Your task to perform on an android device: open a bookmark in the chrome app Image 0: 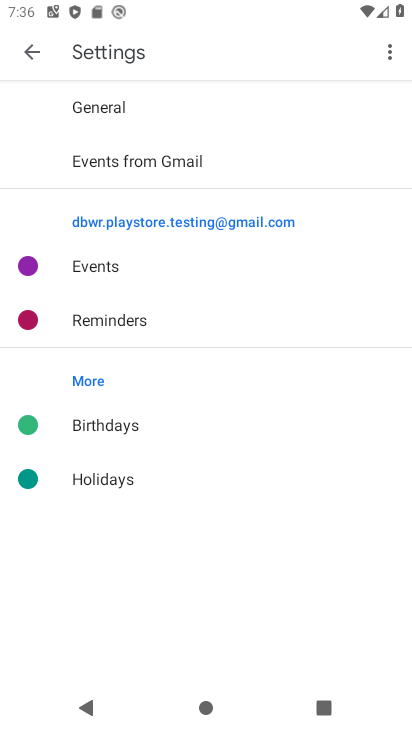
Step 0: drag from (353, 547) to (306, 93)
Your task to perform on an android device: open a bookmark in the chrome app Image 1: 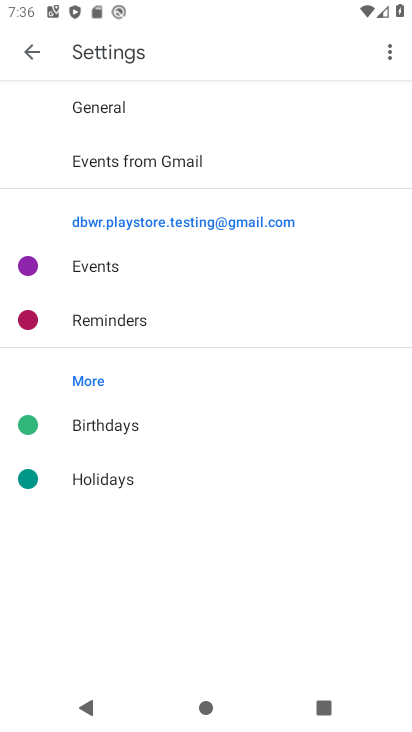
Step 1: press home button
Your task to perform on an android device: open a bookmark in the chrome app Image 2: 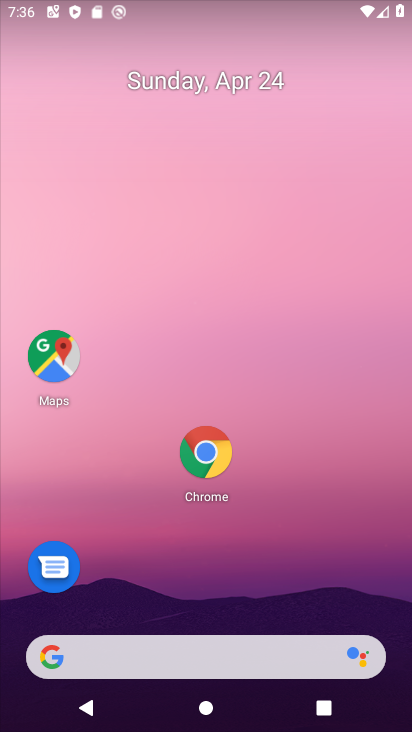
Step 2: drag from (284, 549) to (210, 88)
Your task to perform on an android device: open a bookmark in the chrome app Image 3: 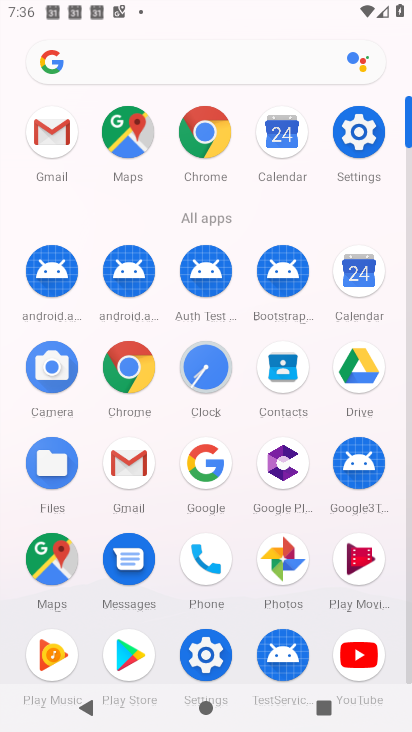
Step 3: click (199, 155)
Your task to perform on an android device: open a bookmark in the chrome app Image 4: 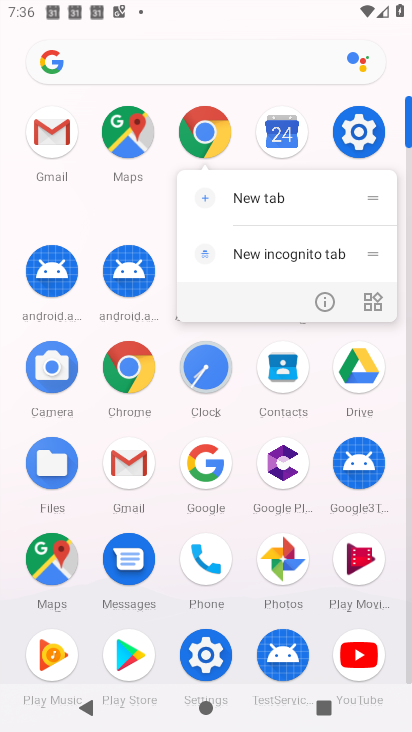
Step 4: click (199, 154)
Your task to perform on an android device: open a bookmark in the chrome app Image 5: 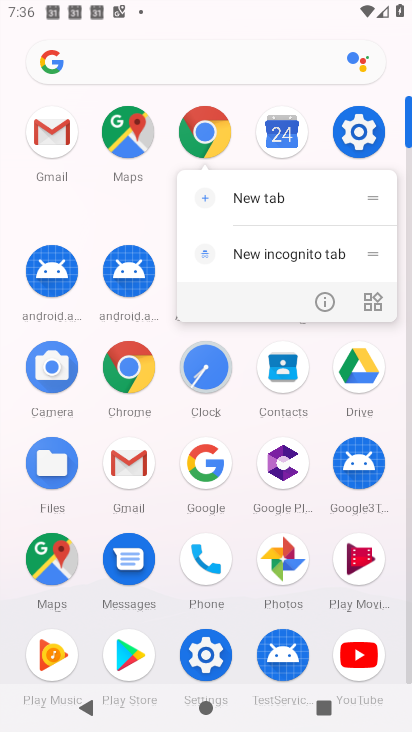
Step 5: click (219, 122)
Your task to perform on an android device: open a bookmark in the chrome app Image 6: 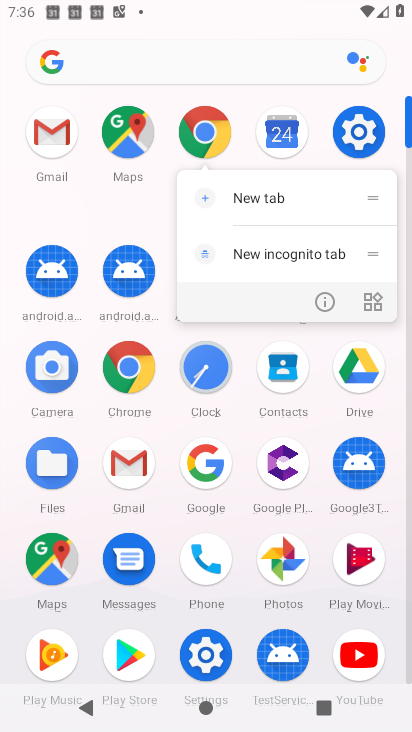
Step 6: click (219, 122)
Your task to perform on an android device: open a bookmark in the chrome app Image 7: 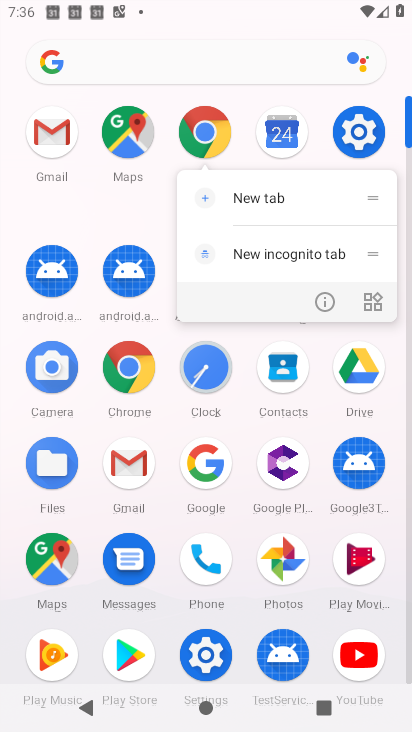
Step 7: click (219, 122)
Your task to perform on an android device: open a bookmark in the chrome app Image 8: 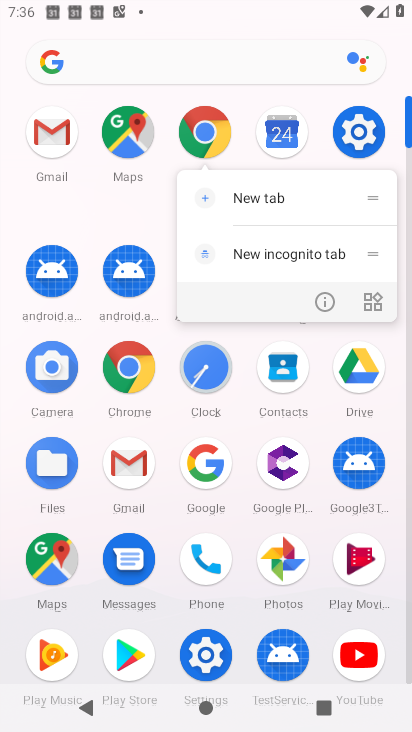
Step 8: click (219, 122)
Your task to perform on an android device: open a bookmark in the chrome app Image 9: 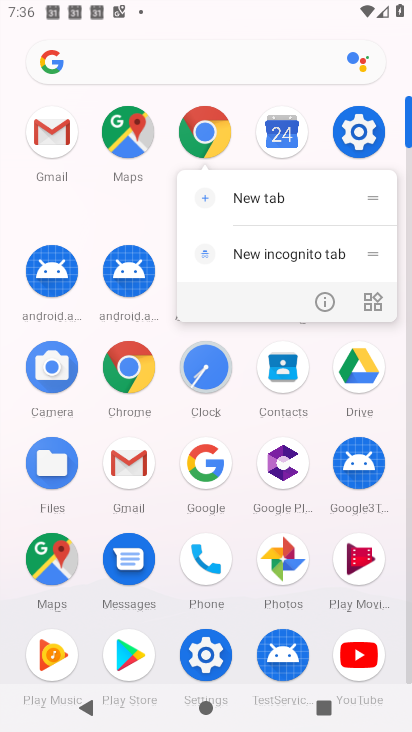
Step 9: click (219, 122)
Your task to perform on an android device: open a bookmark in the chrome app Image 10: 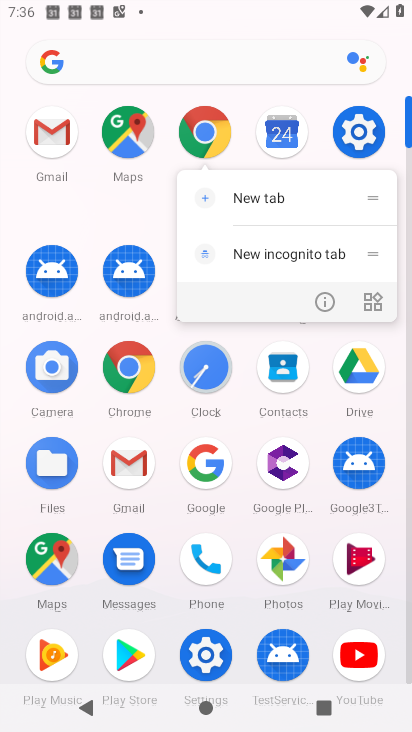
Step 10: click (219, 122)
Your task to perform on an android device: open a bookmark in the chrome app Image 11: 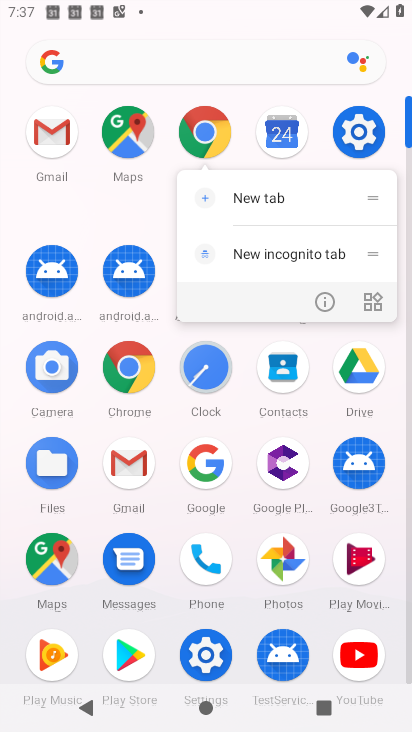
Step 11: click (219, 122)
Your task to perform on an android device: open a bookmark in the chrome app Image 12: 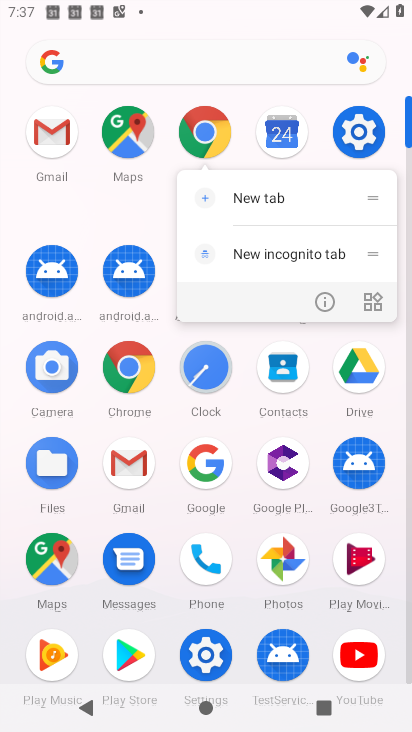
Step 12: click (219, 122)
Your task to perform on an android device: open a bookmark in the chrome app Image 13: 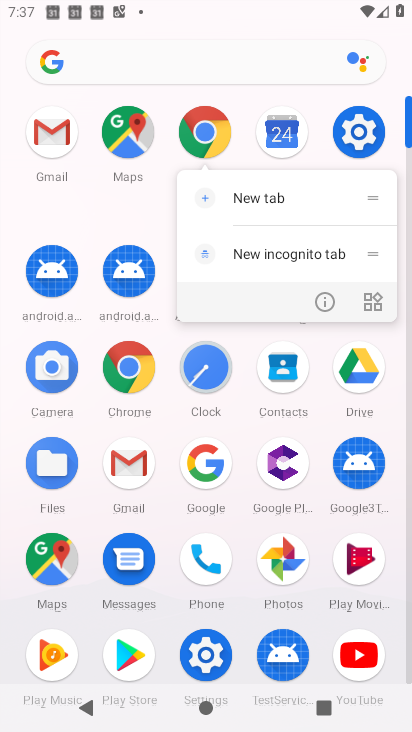
Step 13: click (219, 122)
Your task to perform on an android device: open a bookmark in the chrome app Image 14: 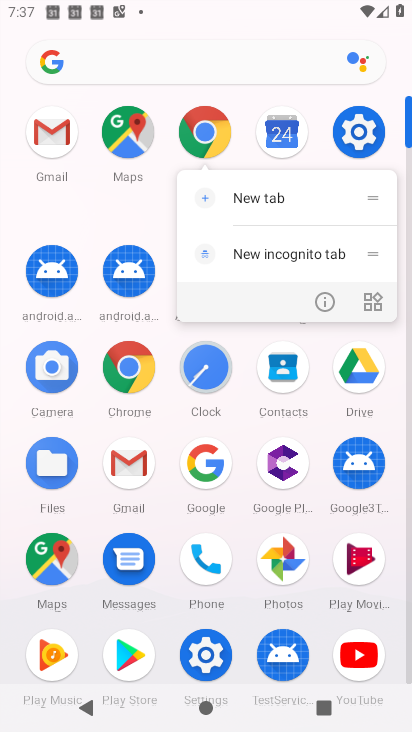
Step 14: click (219, 122)
Your task to perform on an android device: open a bookmark in the chrome app Image 15: 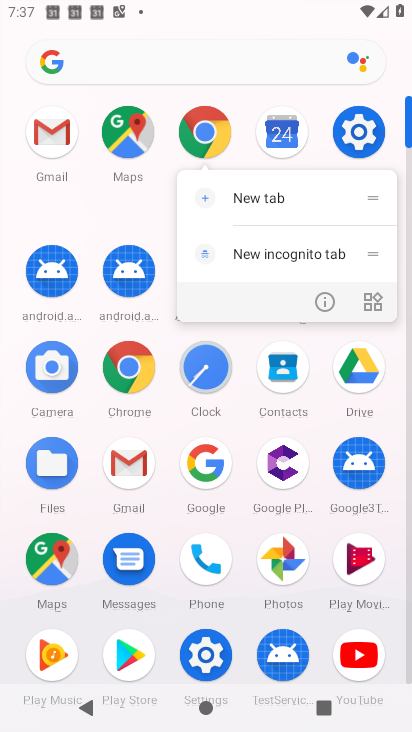
Step 15: click (219, 122)
Your task to perform on an android device: open a bookmark in the chrome app Image 16: 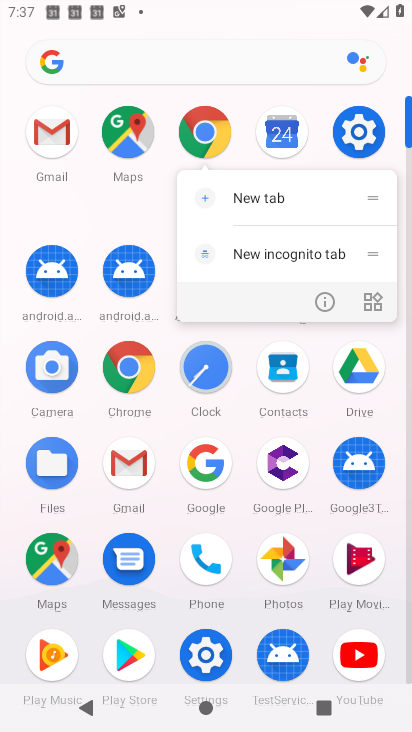
Step 16: click (219, 122)
Your task to perform on an android device: open a bookmark in the chrome app Image 17: 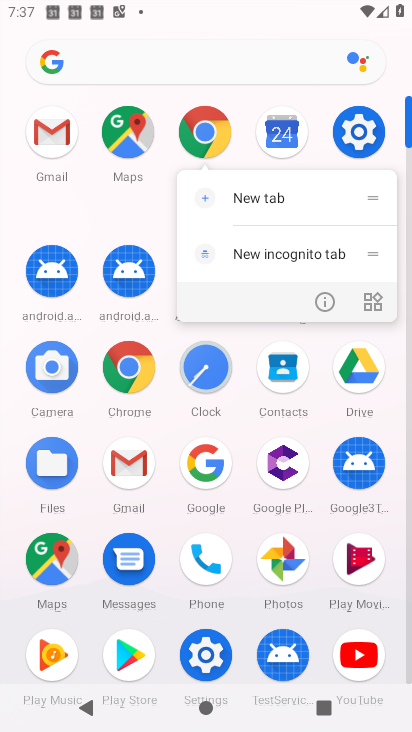
Step 17: click (219, 122)
Your task to perform on an android device: open a bookmark in the chrome app Image 18: 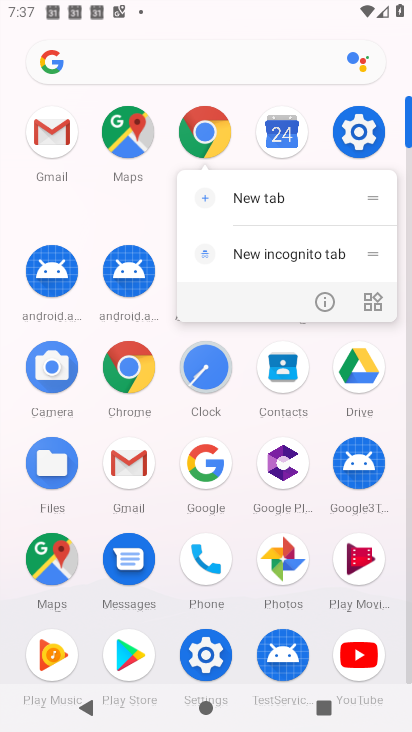
Step 18: click (219, 122)
Your task to perform on an android device: open a bookmark in the chrome app Image 19: 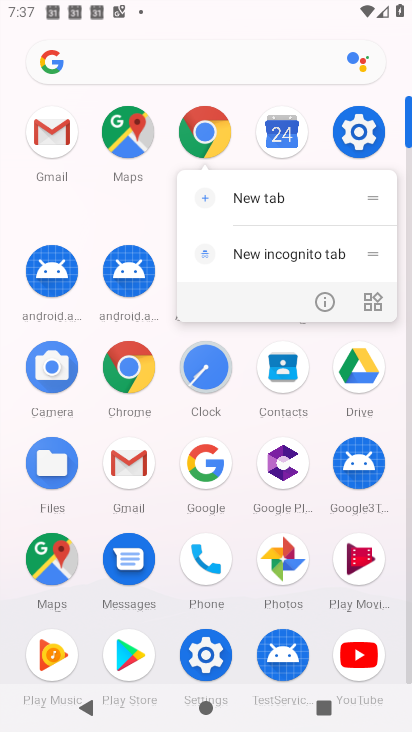
Step 19: click (219, 122)
Your task to perform on an android device: open a bookmark in the chrome app Image 20: 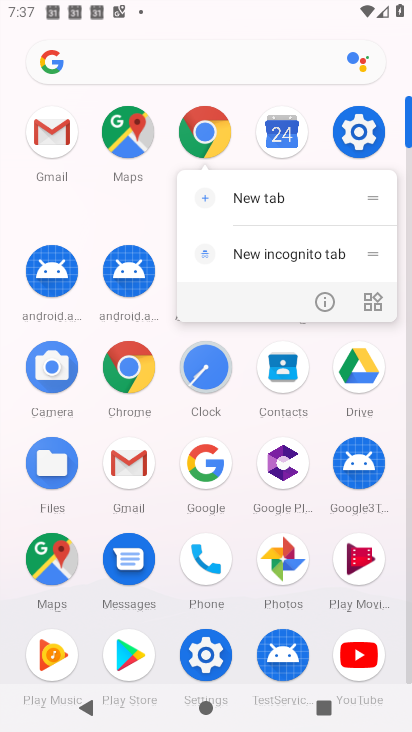
Step 20: click (219, 122)
Your task to perform on an android device: open a bookmark in the chrome app Image 21: 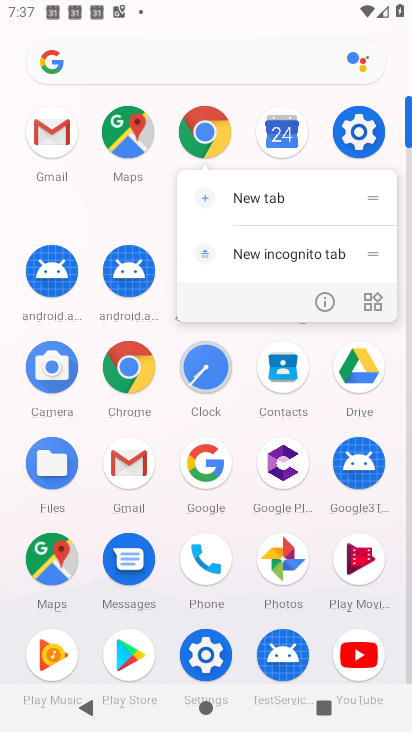
Step 21: click (219, 122)
Your task to perform on an android device: open a bookmark in the chrome app Image 22: 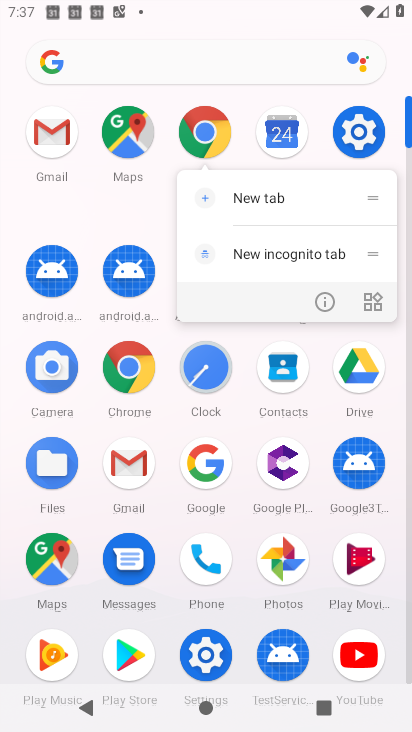
Step 22: click (219, 122)
Your task to perform on an android device: open a bookmark in the chrome app Image 23: 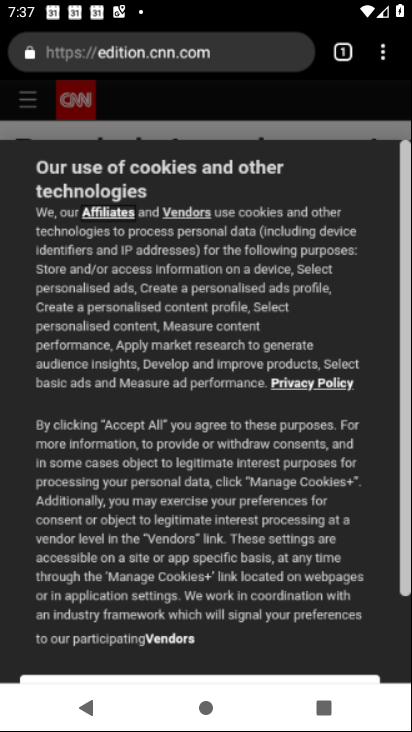
Step 23: click (219, 122)
Your task to perform on an android device: open a bookmark in the chrome app Image 24: 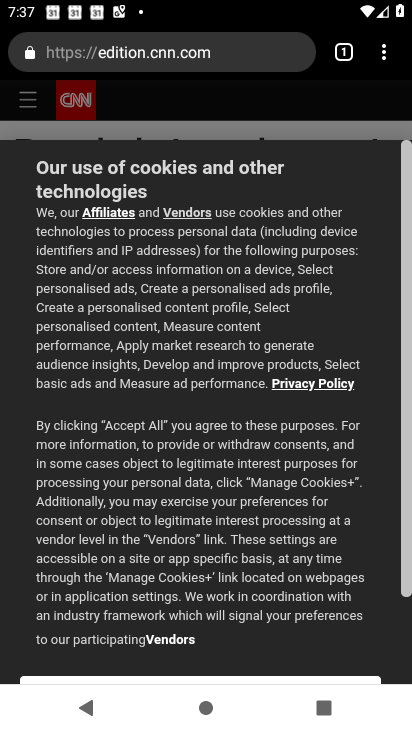
Step 24: click (219, 122)
Your task to perform on an android device: open a bookmark in the chrome app Image 25: 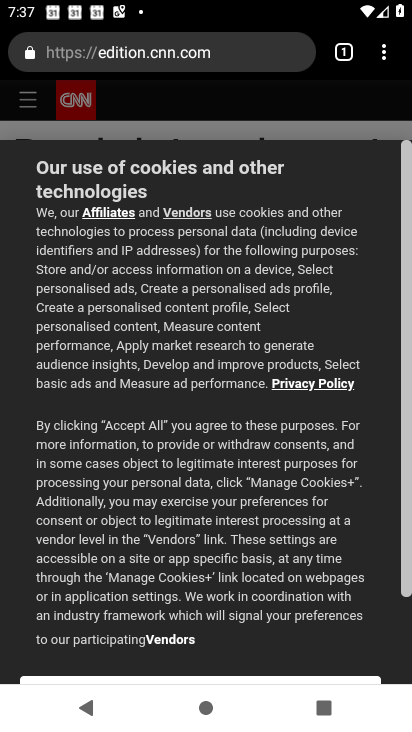
Step 25: click (219, 122)
Your task to perform on an android device: open a bookmark in the chrome app Image 26: 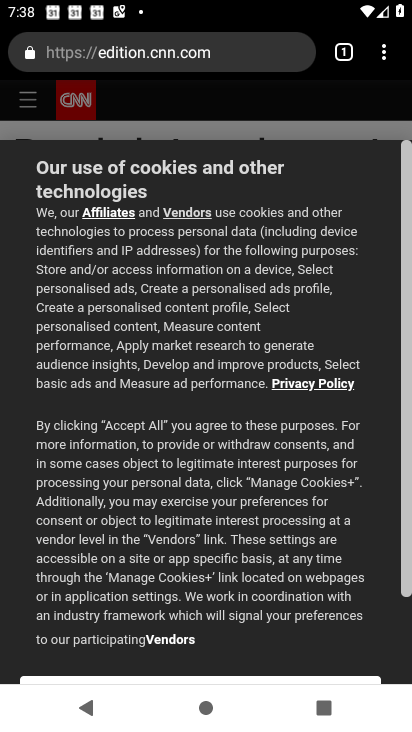
Step 26: drag from (379, 36) to (229, 198)
Your task to perform on an android device: open a bookmark in the chrome app Image 27: 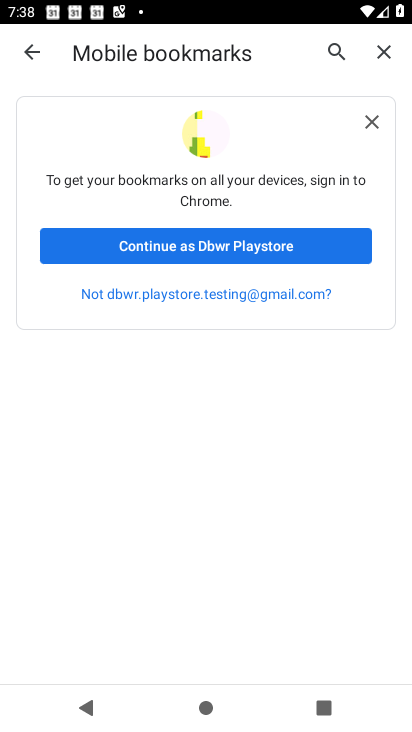
Step 27: click (216, 237)
Your task to perform on an android device: open a bookmark in the chrome app Image 28: 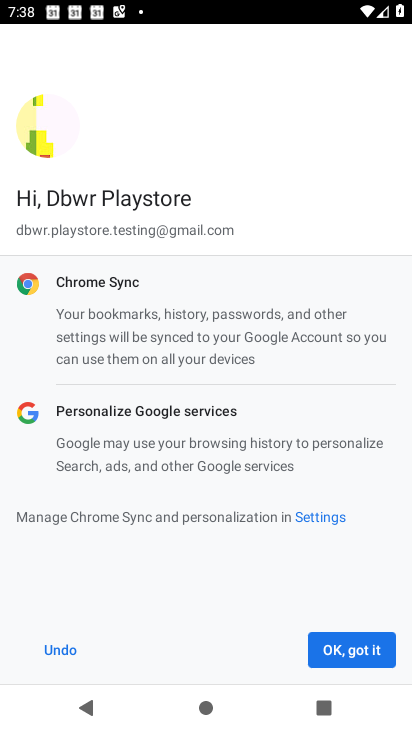
Step 28: click (343, 666)
Your task to perform on an android device: open a bookmark in the chrome app Image 29: 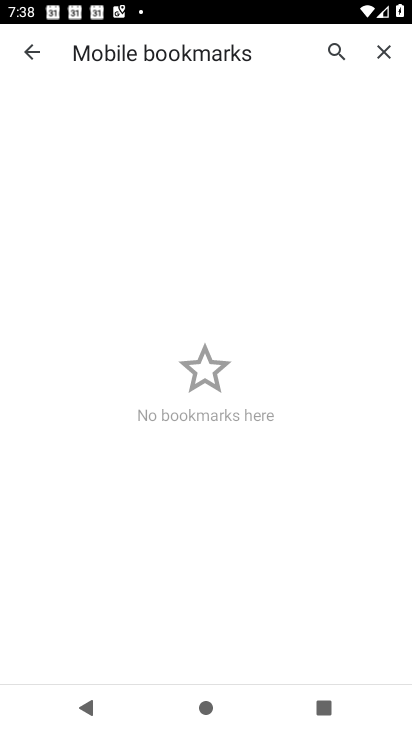
Step 29: task complete